Your task to perform on an android device: see creations saved in the google photos Image 0: 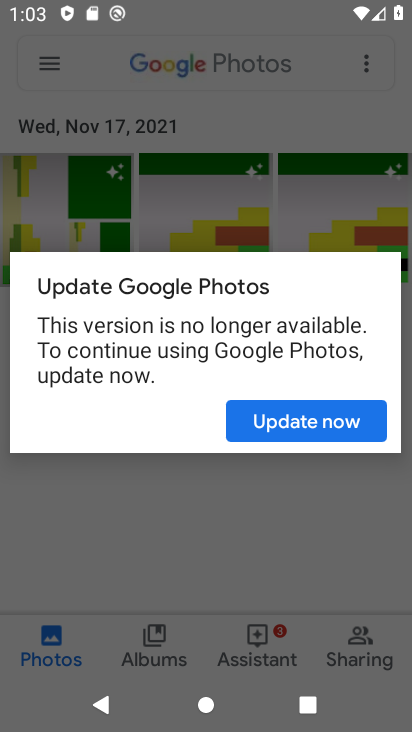
Step 0: press home button
Your task to perform on an android device: see creations saved in the google photos Image 1: 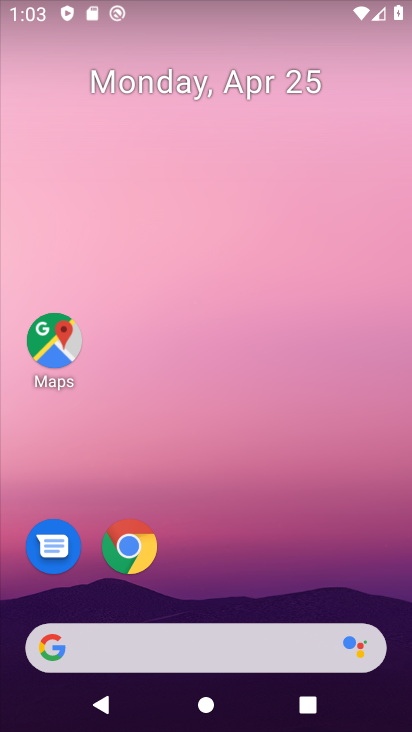
Step 1: drag from (216, 599) to (200, 14)
Your task to perform on an android device: see creations saved in the google photos Image 2: 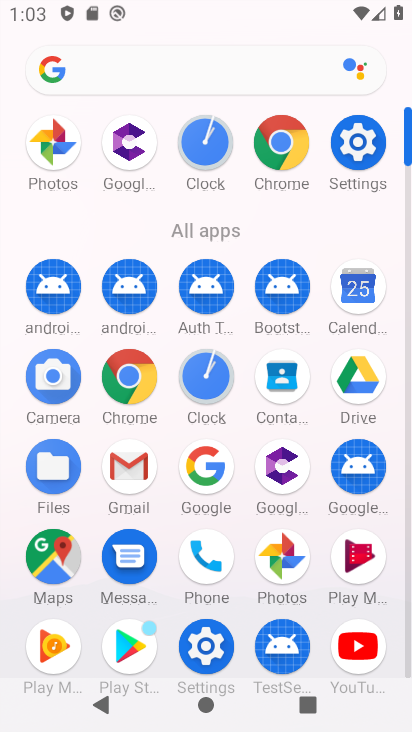
Step 2: click (277, 553)
Your task to perform on an android device: see creations saved in the google photos Image 3: 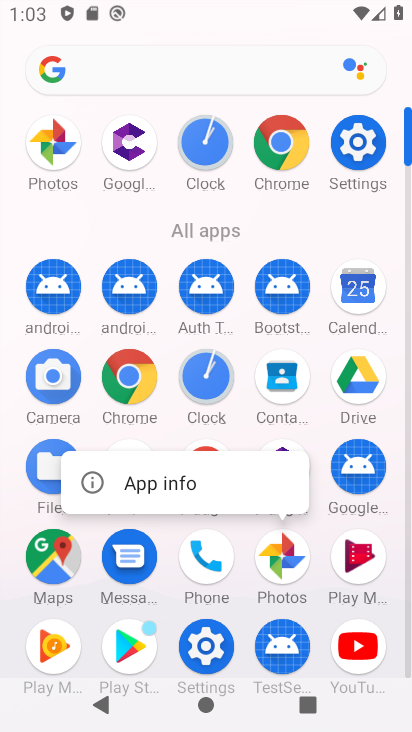
Step 3: click (277, 562)
Your task to perform on an android device: see creations saved in the google photos Image 4: 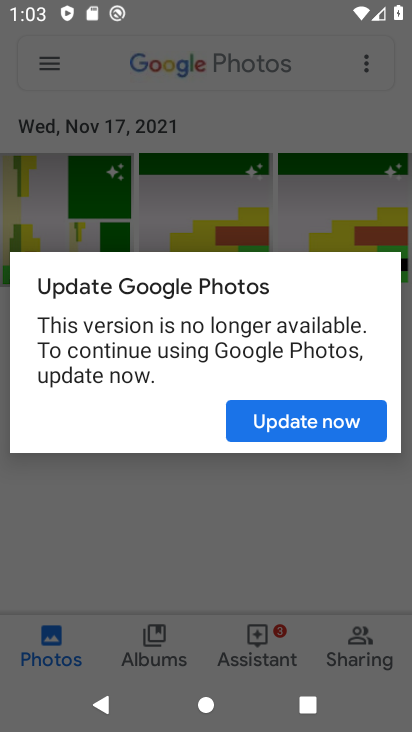
Step 4: click (296, 414)
Your task to perform on an android device: see creations saved in the google photos Image 5: 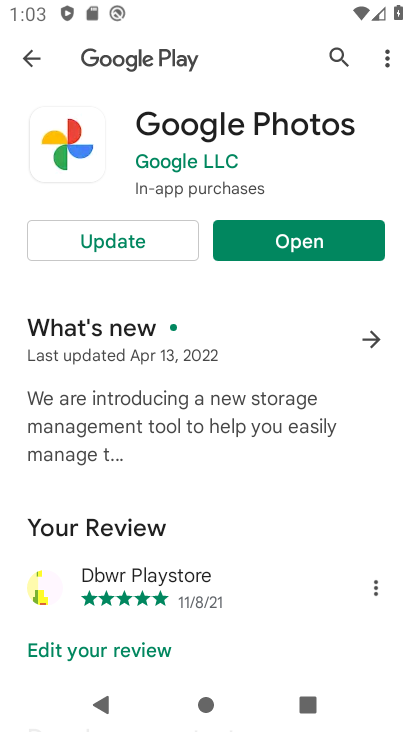
Step 5: click (315, 240)
Your task to perform on an android device: see creations saved in the google photos Image 6: 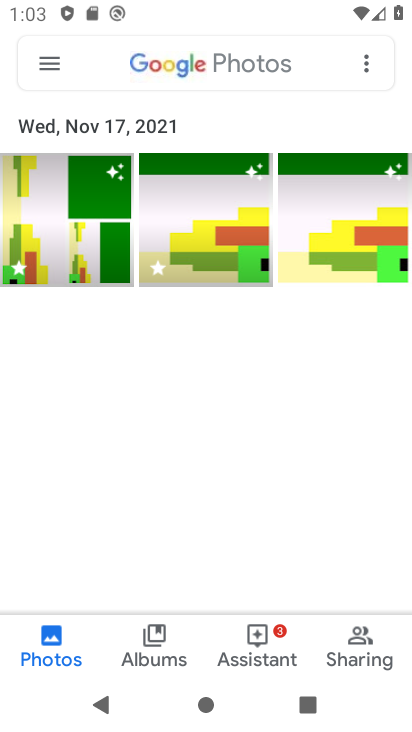
Step 6: click (225, 69)
Your task to perform on an android device: see creations saved in the google photos Image 7: 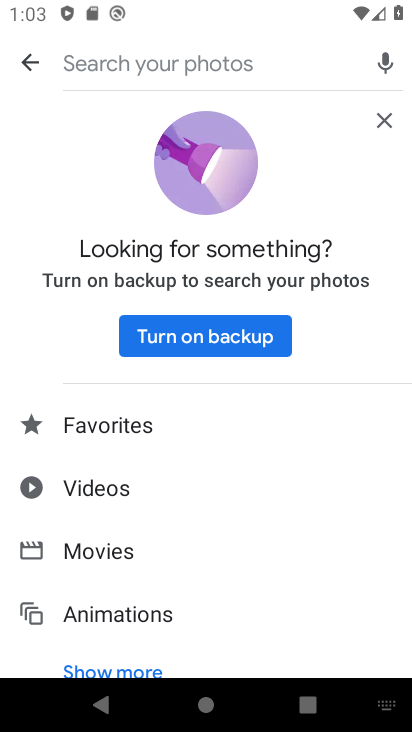
Step 7: click (85, 659)
Your task to perform on an android device: see creations saved in the google photos Image 8: 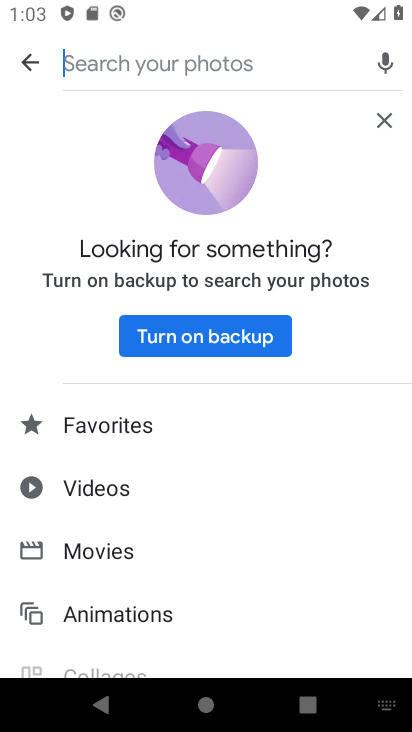
Step 8: drag from (105, 625) to (78, 104)
Your task to perform on an android device: see creations saved in the google photos Image 9: 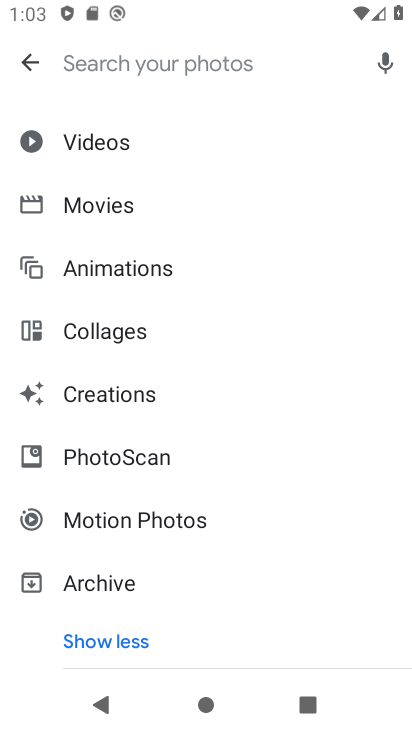
Step 9: click (98, 403)
Your task to perform on an android device: see creations saved in the google photos Image 10: 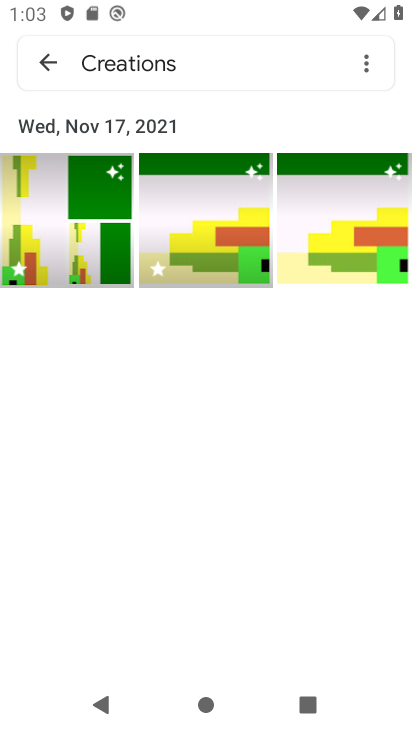
Step 10: task complete